Your task to perform on an android device: move a message to another label in the gmail app Image 0: 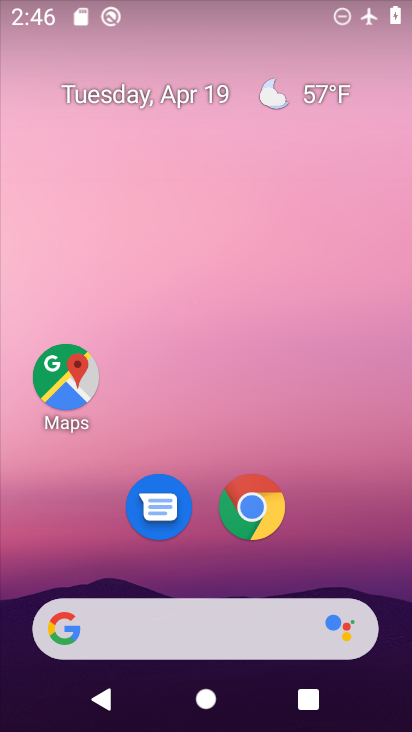
Step 0: drag from (362, 535) to (293, 90)
Your task to perform on an android device: move a message to another label in the gmail app Image 1: 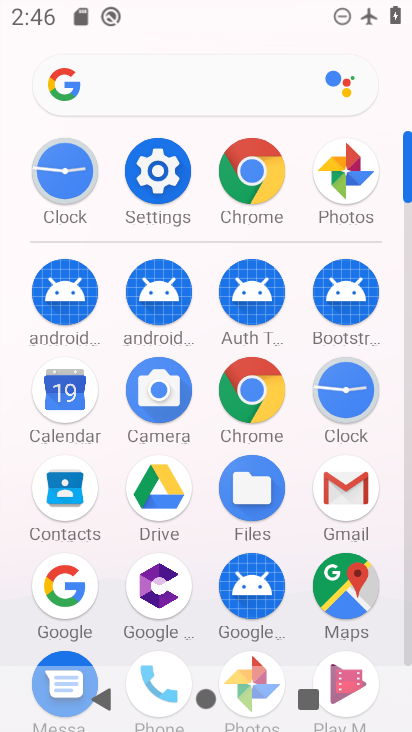
Step 1: click (334, 491)
Your task to perform on an android device: move a message to another label in the gmail app Image 2: 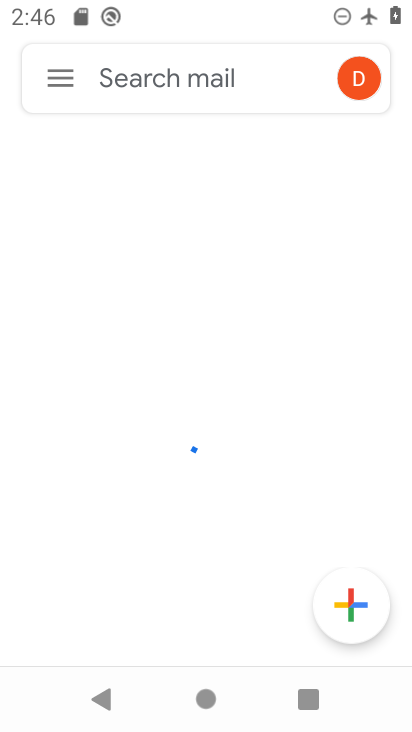
Step 2: click (72, 68)
Your task to perform on an android device: move a message to another label in the gmail app Image 3: 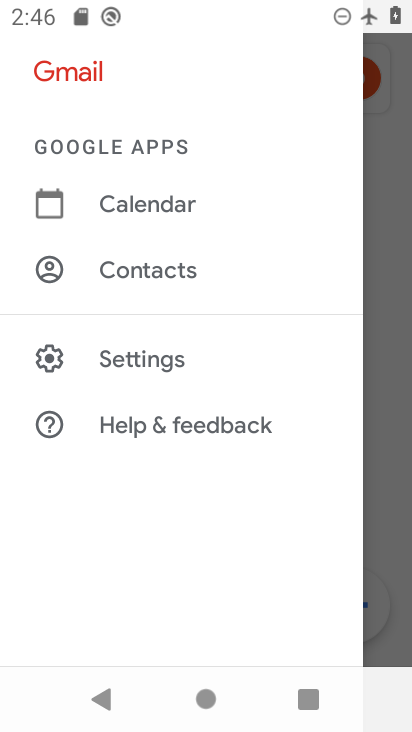
Step 3: click (387, 332)
Your task to perform on an android device: move a message to another label in the gmail app Image 4: 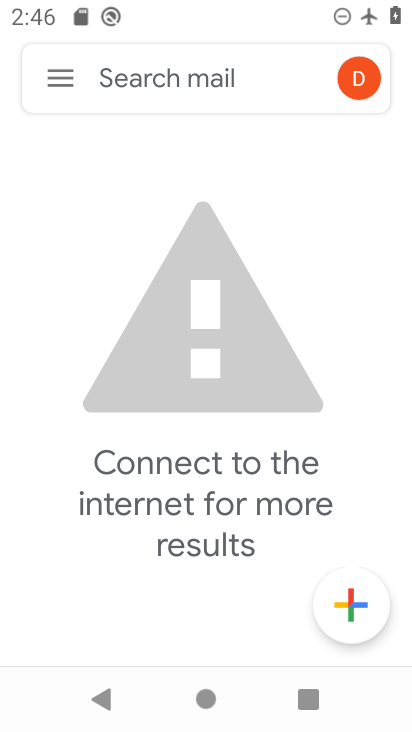
Step 4: task complete